Your task to perform on an android device: Go to location settings Image 0: 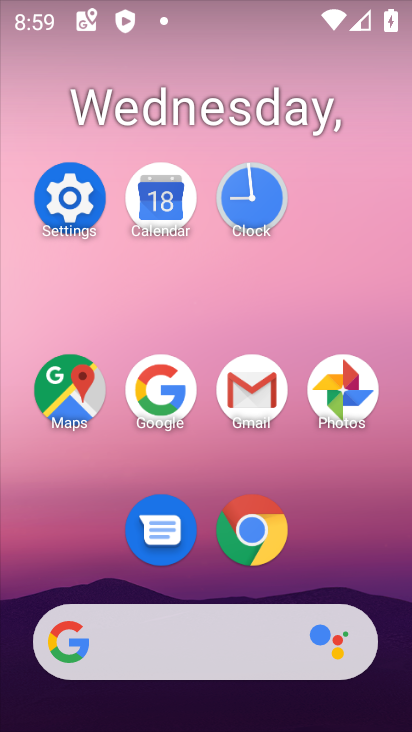
Step 0: click (67, 192)
Your task to perform on an android device: Go to location settings Image 1: 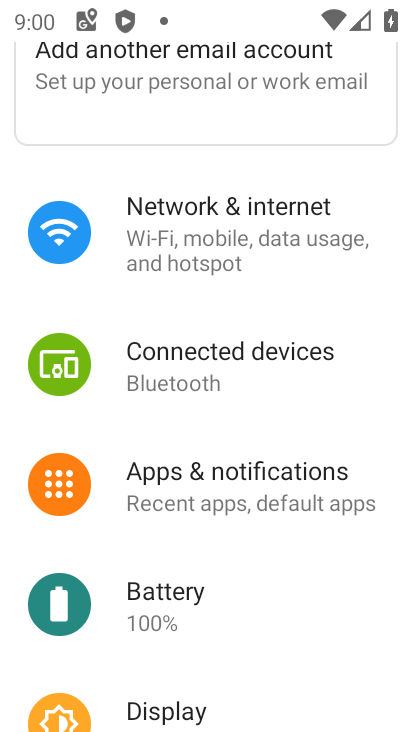
Step 1: drag from (297, 592) to (269, 214)
Your task to perform on an android device: Go to location settings Image 2: 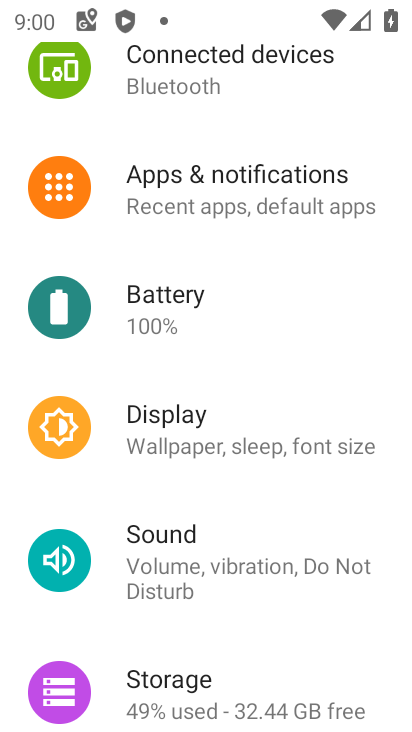
Step 2: drag from (318, 627) to (293, 194)
Your task to perform on an android device: Go to location settings Image 3: 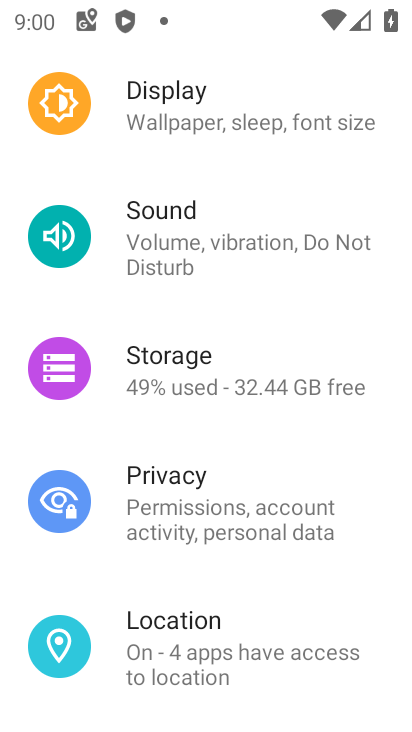
Step 3: click (224, 645)
Your task to perform on an android device: Go to location settings Image 4: 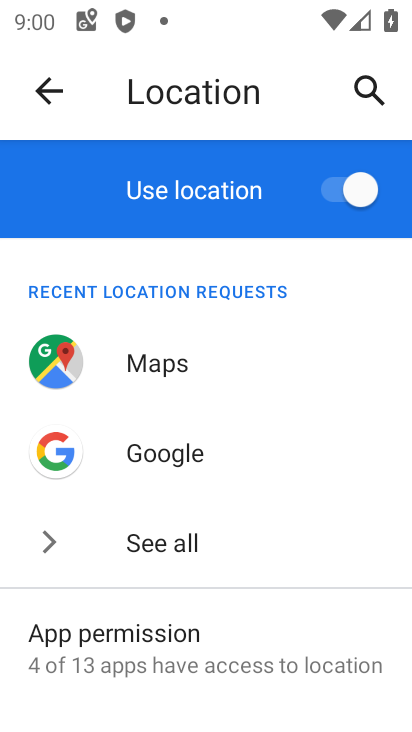
Step 4: task complete